Your task to perform on an android device: open device folders in google photos Image 0: 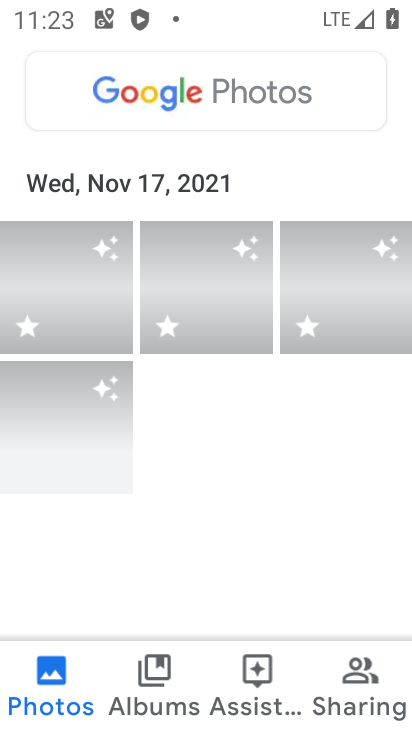
Step 0: press home button
Your task to perform on an android device: open device folders in google photos Image 1: 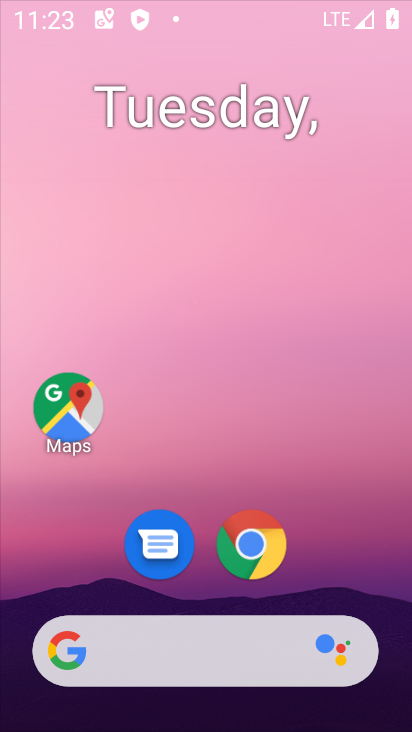
Step 1: drag from (397, 617) to (280, 2)
Your task to perform on an android device: open device folders in google photos Image 2: 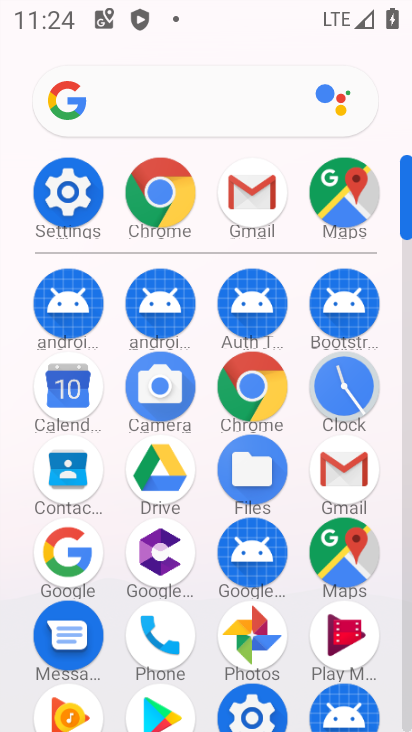
Step 2: click (243, 629)
Your task to perform on an android device: open device folders in google photos Image 3: 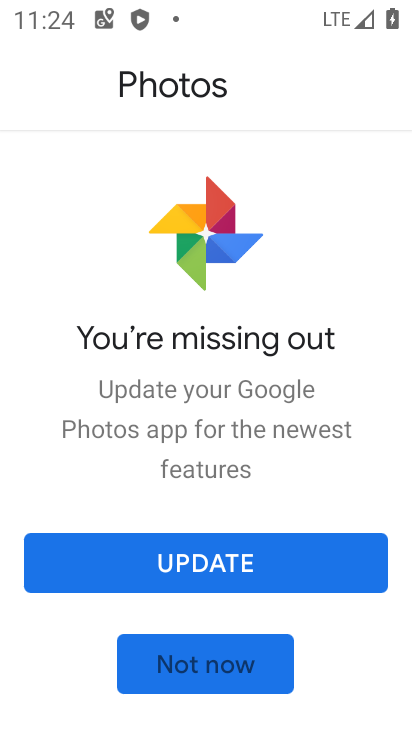
Step 3: click (234, 573)
Your task to perform on an android device: open device folders in google photos Image 4: 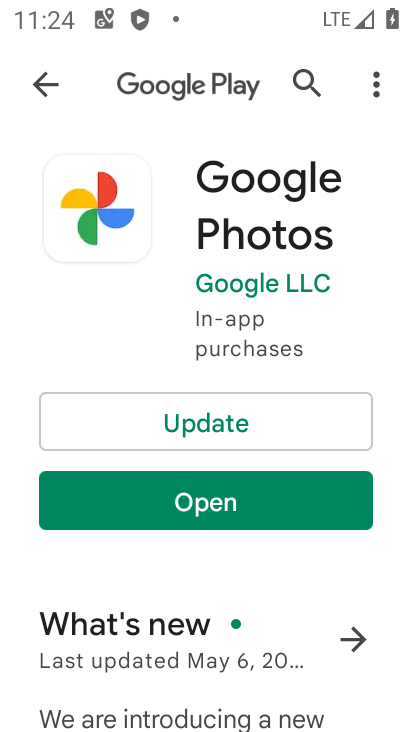
Step 4: click (231, 418)
Your task to perform on an android device: open device folders in google photos Image 5: 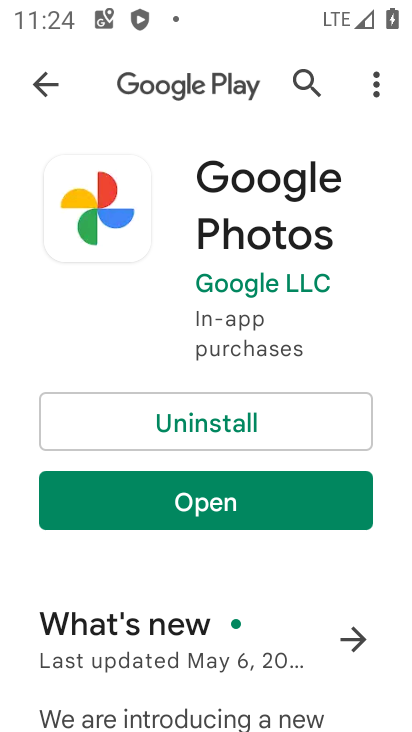
Step 5: click (237, 483)
Your task to perform on an android device: open device folders in google photos Image 6: 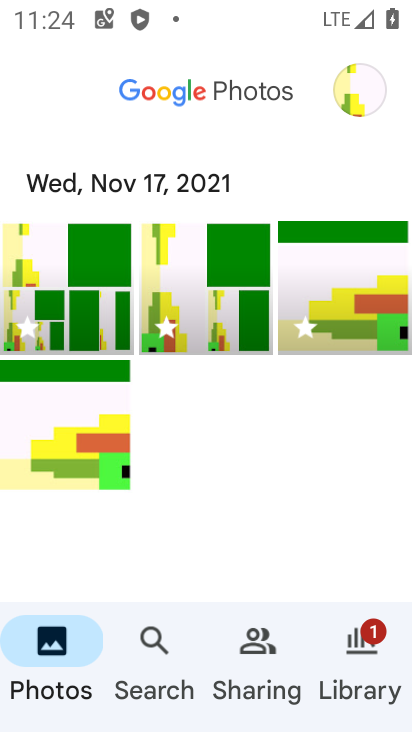
Step 6: task complete